Your task to perform on an android device: Open Youtube and go to "Your channel" Image 0: 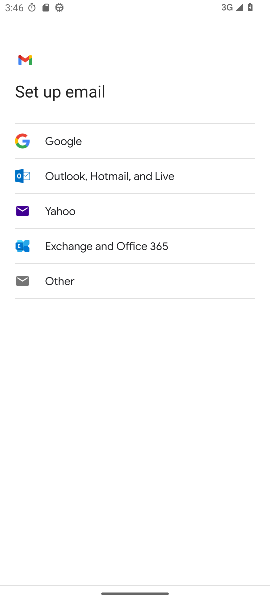
Step 0: press home button
Your task to perform on an android device: Open Youtube and go to "Your channel" Image 1: 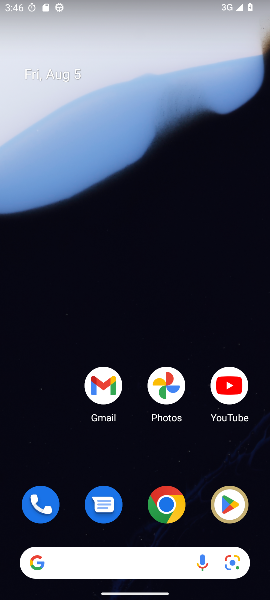
Step 1: click (228, 384)
Your task to perform on an android device: Open Youtube and go to "Your channel" Image 2: 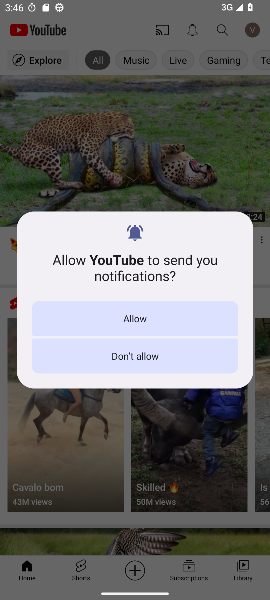
Step 2: click (104, 322)
Your task to perform on an android device: Open Youtube and go to "Your channel" Image 3: 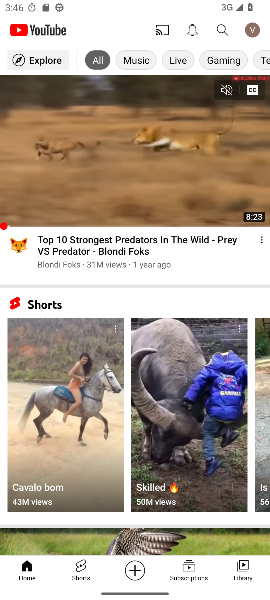
Step 3: click (246, 28)
Your task to perform on an android device: Open Youtube and go to "Your channel" Image 4: 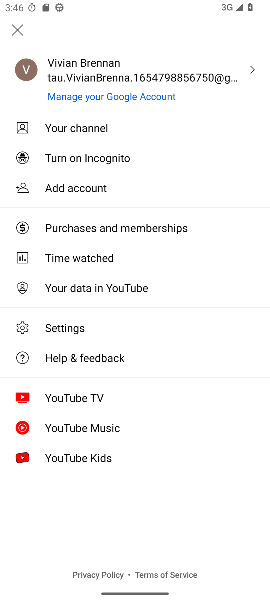
Step 4: click (117, 129)
Your task to perform on an android device: Open Youtube and go to "Your channel" Image 5: 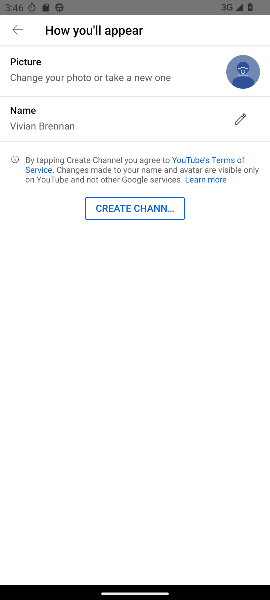
Step 5: task complete